Your task to perform on an android device: turn on wifi Image 0: 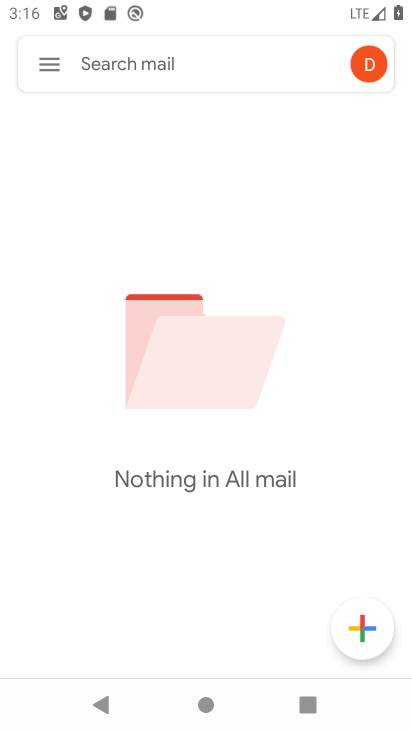
Step 0: press home button
Your task to perform on an android device: turn on wifi Image 1: 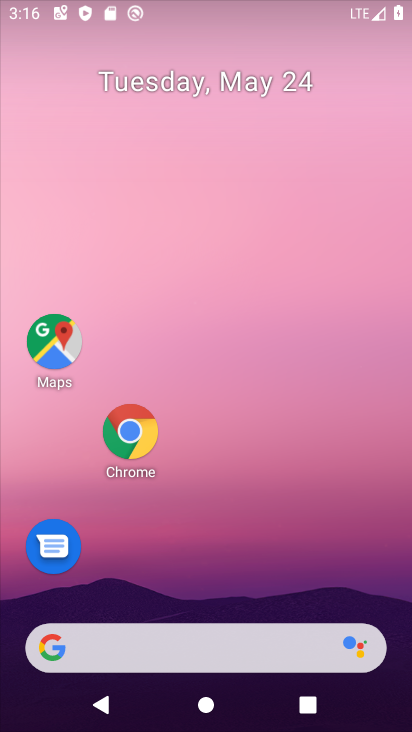
Step 1: drag from (208, 534) to (288, 75)
Your task to perform on an android device: turn on wifi Image 2: 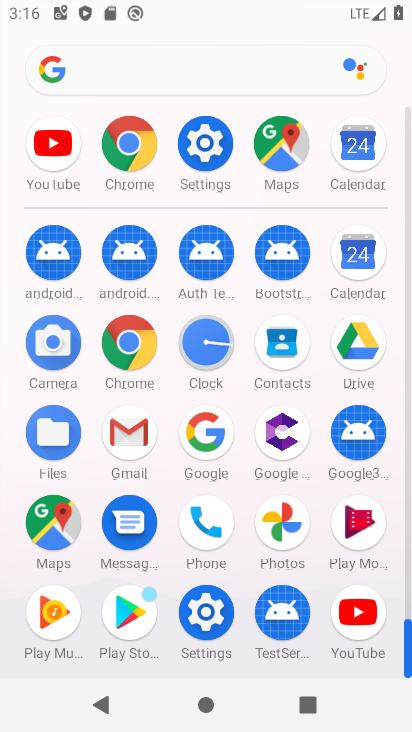
Step 2: click (211, 136)
Your task to perform on an android device: turn on wifi Image 3: 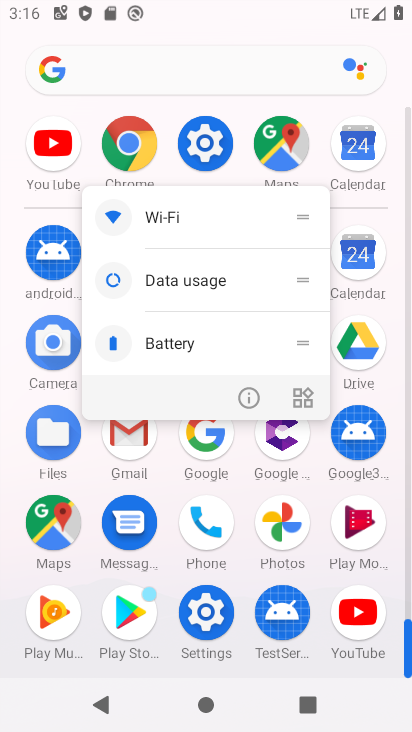
Step 3: click (198, 222)
Your task to perform on an android device: turn on wifi Image 4: 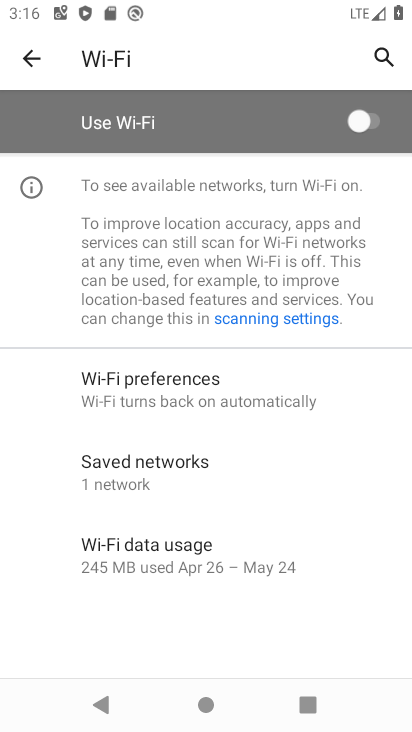
Step 4: click (307, 141)
Your task to perform on an android device: turn on wifi Image 5: 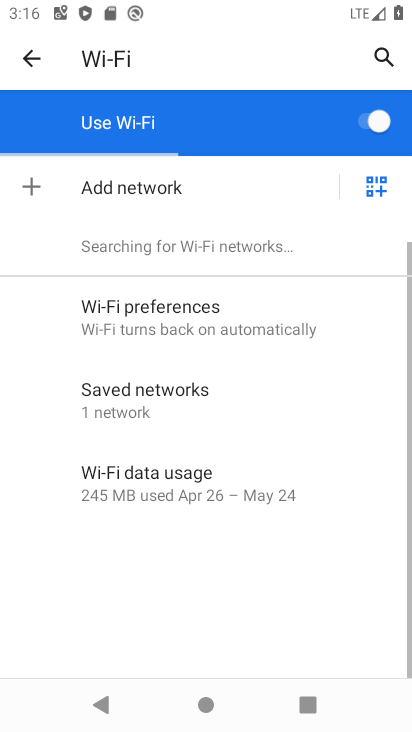
Step 5: task complete